Your task to perform on an android device: Go to notification settings Image 0: 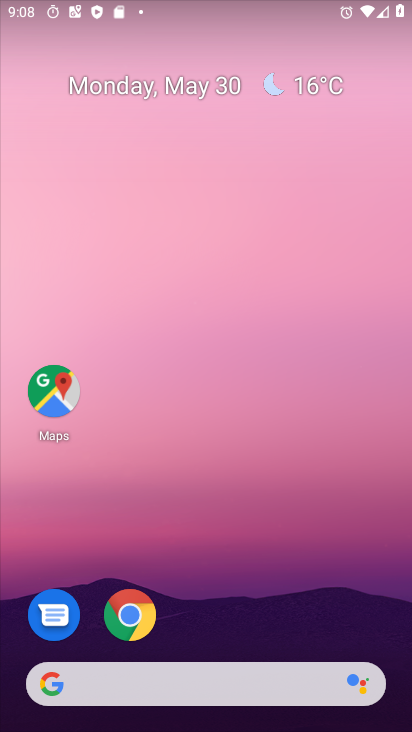
Step 0: drag from (317, 610) to (388, 133)
Your task to perform on an android device: Go to notification settings Image 1: 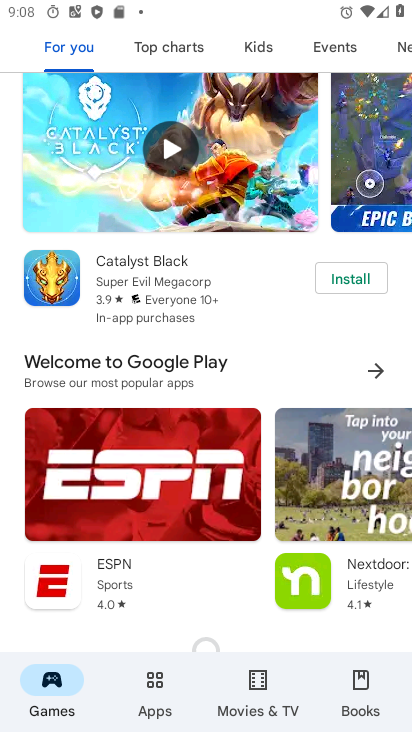
Step 1: press home button
Your task to perform on an android device: Go to notification settings Image 2: 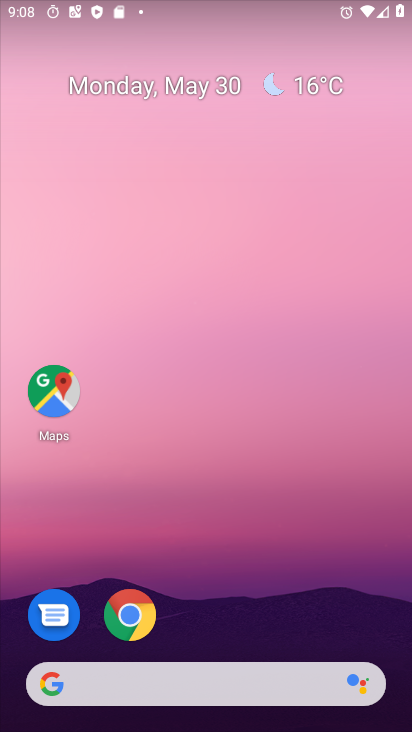
Step 2: drag from (291, 540) to (271, 61)
Your task to perform on an android device: Go to notification settings Image 3: 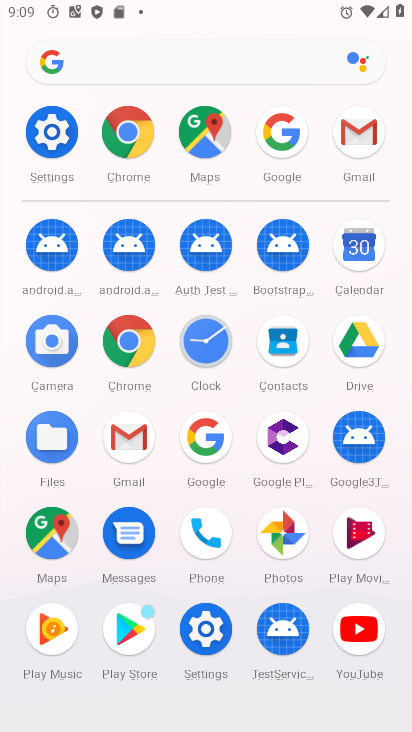
Step 3: click (52, 137)
Your task to perform on an android device: Go to notification settings Image 4: 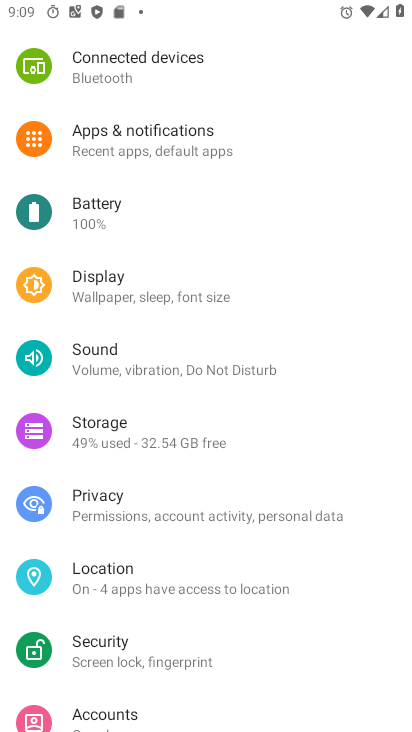
Step 4: drag from (252, 181) to (249, 633)
Your task to perform on an android device: Go to notification settings Image 5: 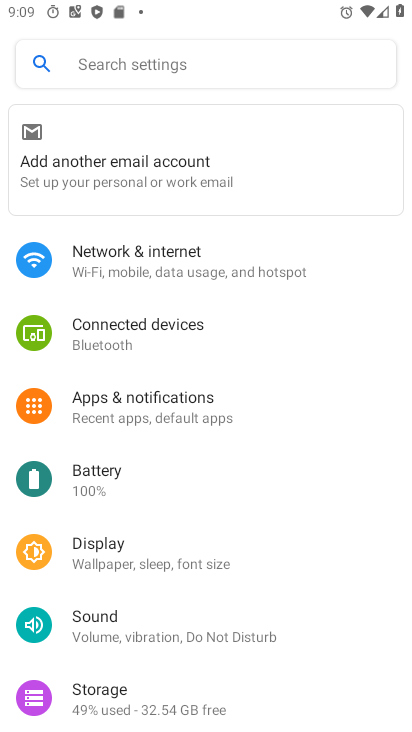
Step 5: click (195, 413)
Your task to perform on an android device: Go to notification settings Image 6: 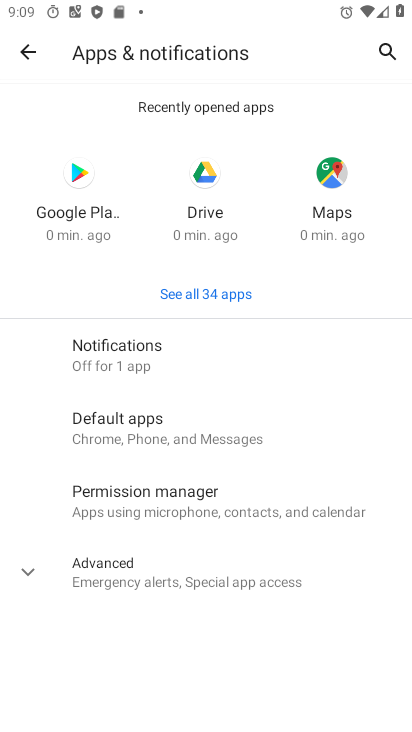
Step 6: click (119, 343)
Your task to perform on an android device: Go to notification settings Image 7: 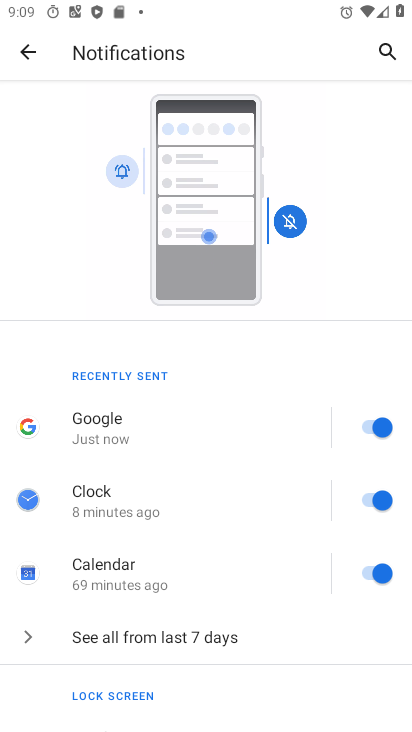
Step 7: task complete